Your task to perform on an android device: Clear all items from cart on ebay. Search for amazon basics triple a on ebay, select the first entry, add it to the cart, then select checkout. Image 0: 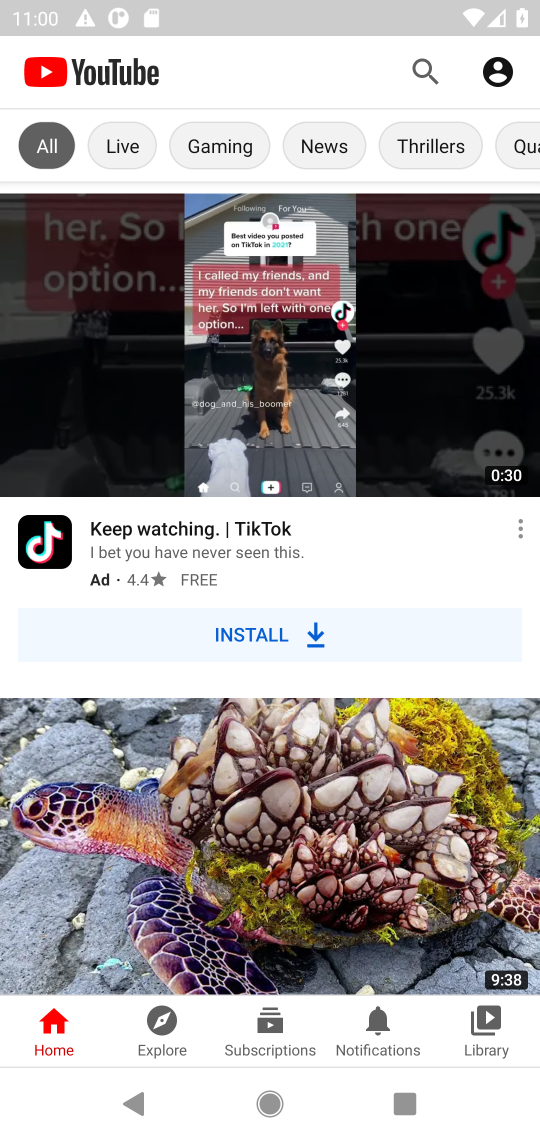
Step 0: press home button
Your task to perform on an android device: Clear all items from cart on ebay. Search for amazon basics triple a on ebay, select the first entry, add it to the cart, then select checkout. Image 1: 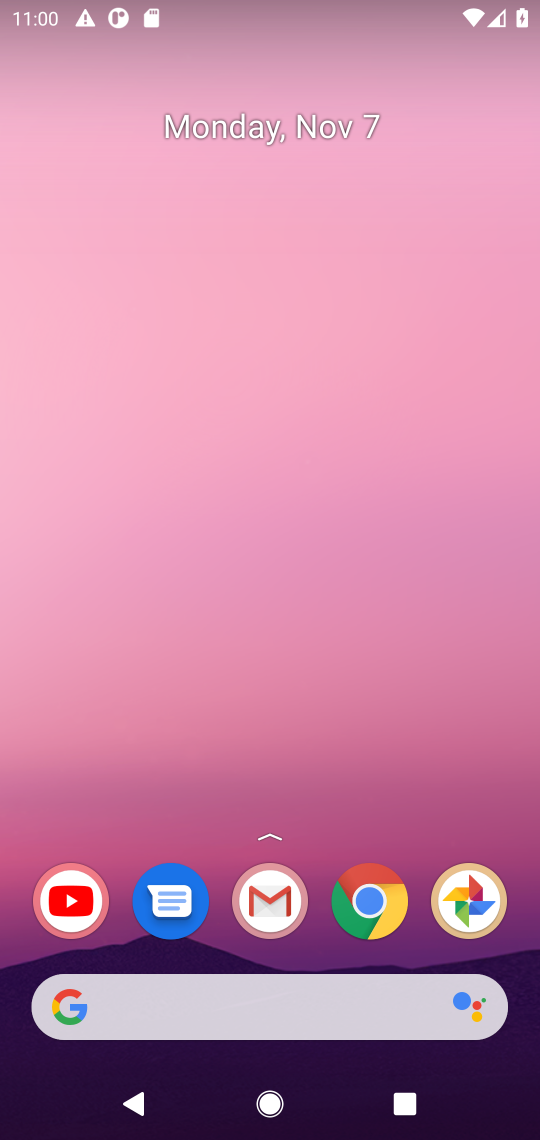
Step 1: click (407, 896)
Your task to perform on an android device: Clear all items from cart on ebay. Search for amazon basics triple a on ebay, select the first entry, add it to the cart, then select checkout. Image 2: 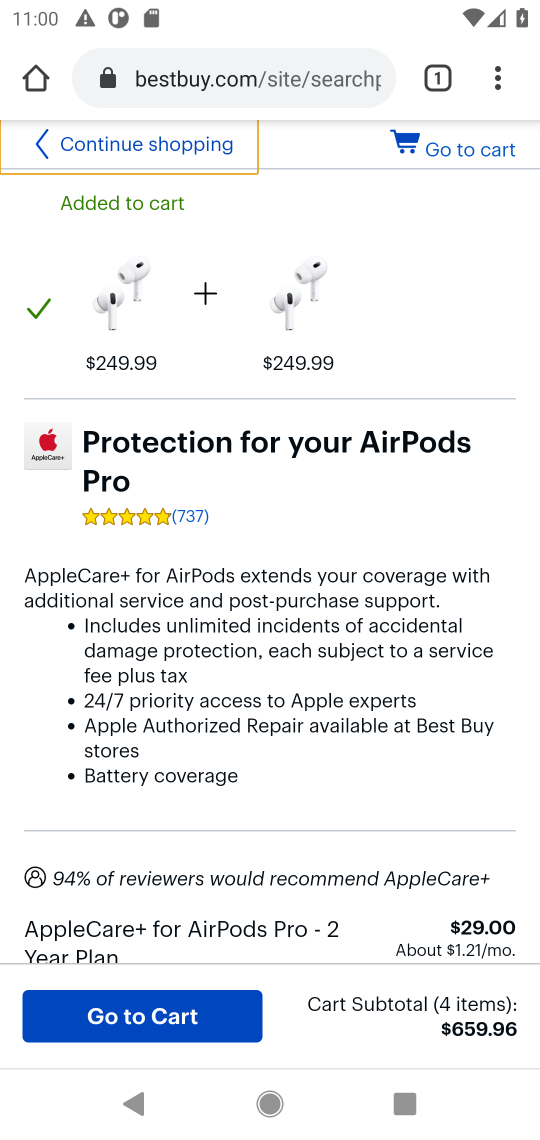
Step 2: click (266, 99)
Your task to perform on an android device: Clear all items from cart on ebay. Search for amazon basics triple a on ebay, select the first entry, add it to the cart, then select checkout. Image 3: 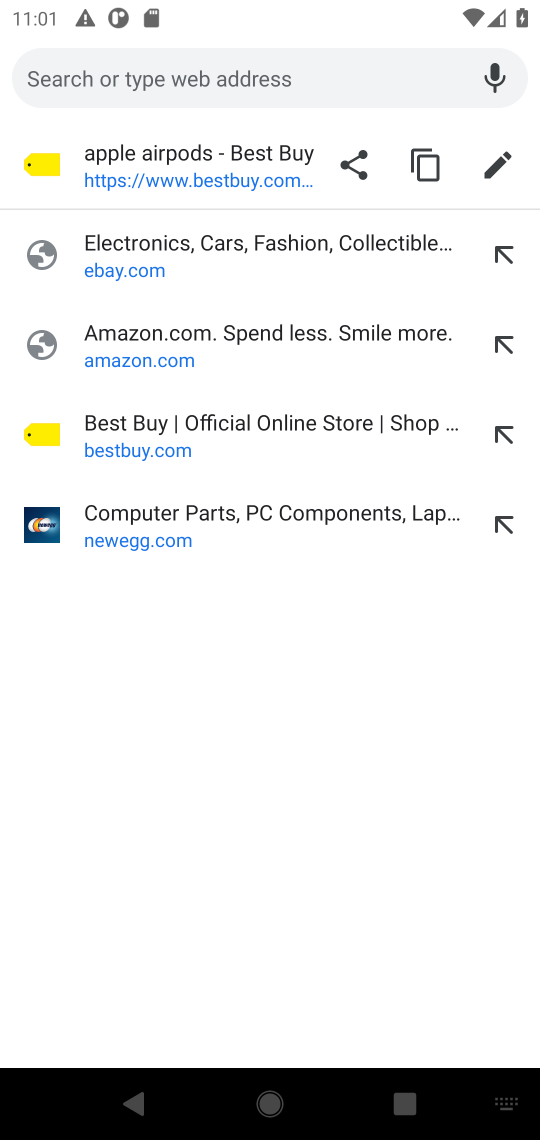
Step 3: type "ebay"
Your task to perform on an android device: Clear all items from cart on ebay. Search for amazon basics triple a on ebay, select the first entry, add it to the cart, then select checkout. Image 4: 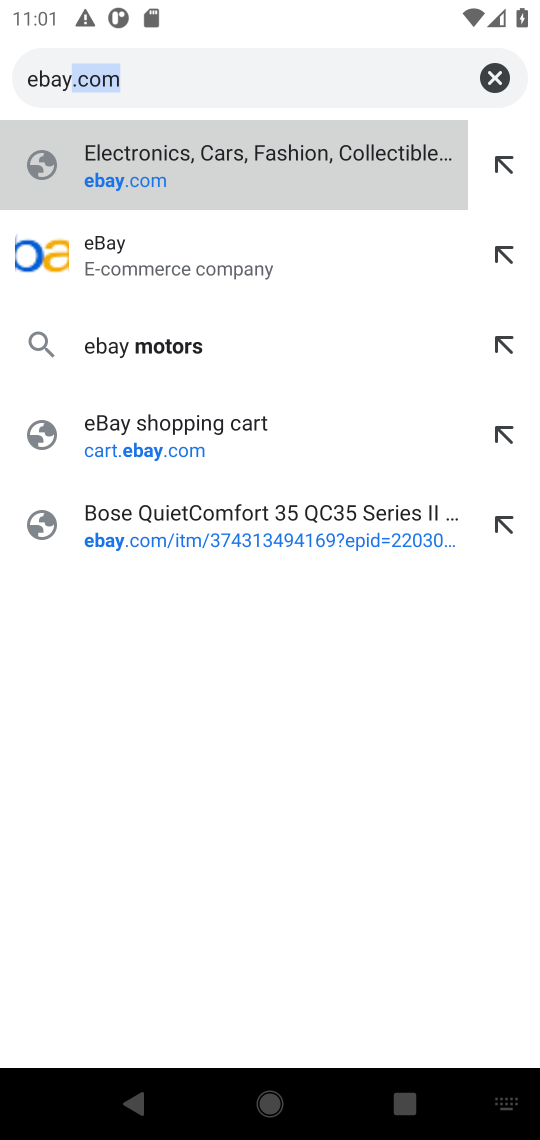
Step 4: click (243, 153)
Your task to perform on an android device: Clear all items from cart on ebay. Search for amazon basics triple a on ebay, select the first entry, add it to the cart, then select checkout. Image 5: 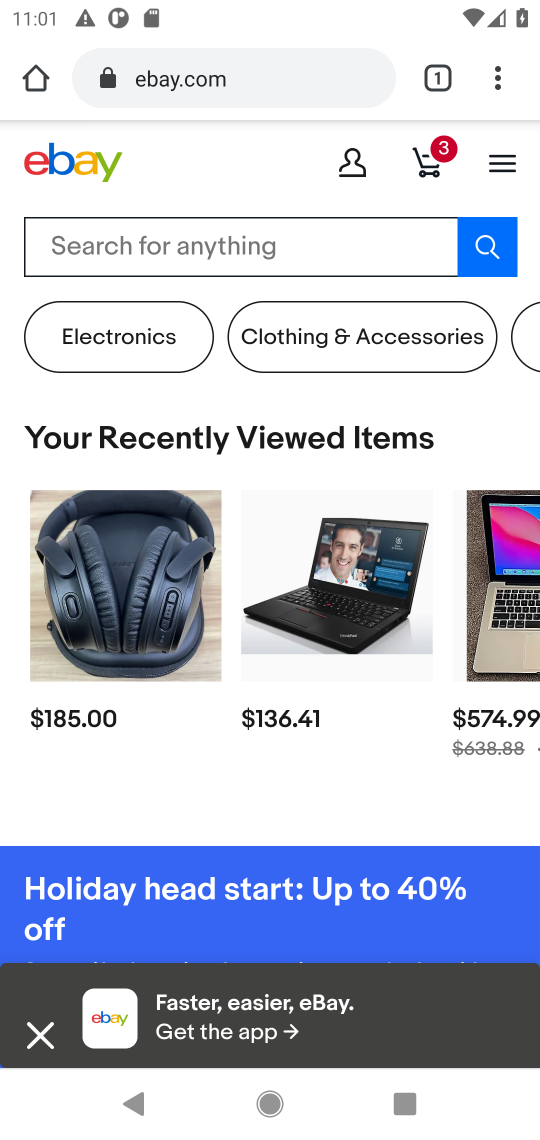
Step 5: click (253, 247)
Your task to perform on an android device: Clear all items from cart on ebay. Search for amazon basics triple a on ebay, select the first entry, add it to the cart, then select checkout. Image 6: 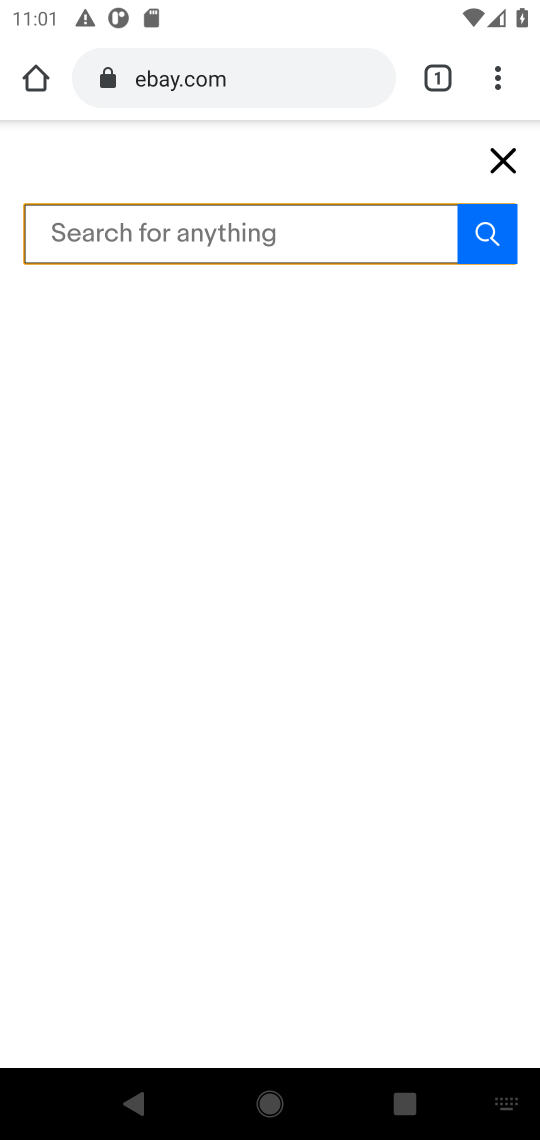
Step 6: type "amazon basic aaa"
Your task to perform on an android device: Clear all items from cart on ebay. Search for amazon basics triple a on ebay, select the first entry, add it to the cart, then select checkout. Image 7: 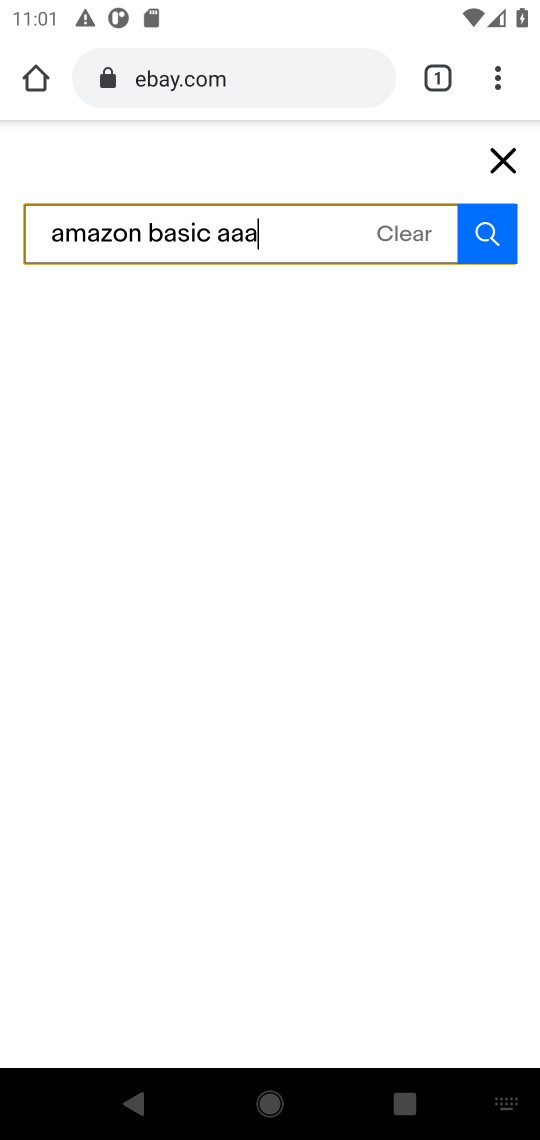
Step 7: press enter
Your task to perform on an android device: Clear all items from cart on ebay. Search for amazon basics triple a on ebay, select the first entry, add it to the cart, then select checkout. Image 8: 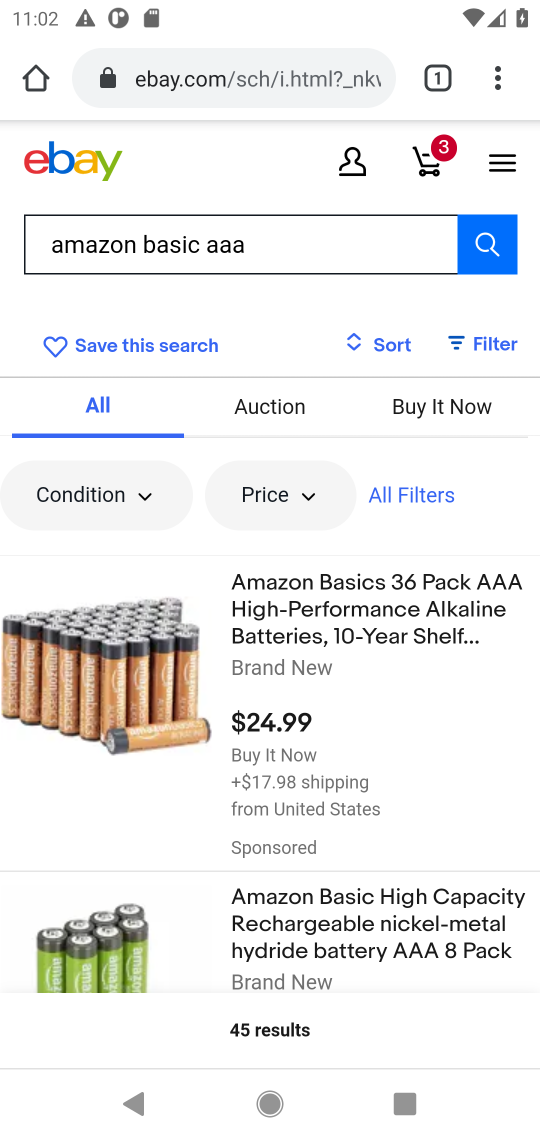
Step 8: click (232, 693)
Your task to perform on an android device: Clear all items from cart on ebay. Search for amazon basics triple a on ebay, select the first entry, add it to the cart, then select checkout. Image 9: 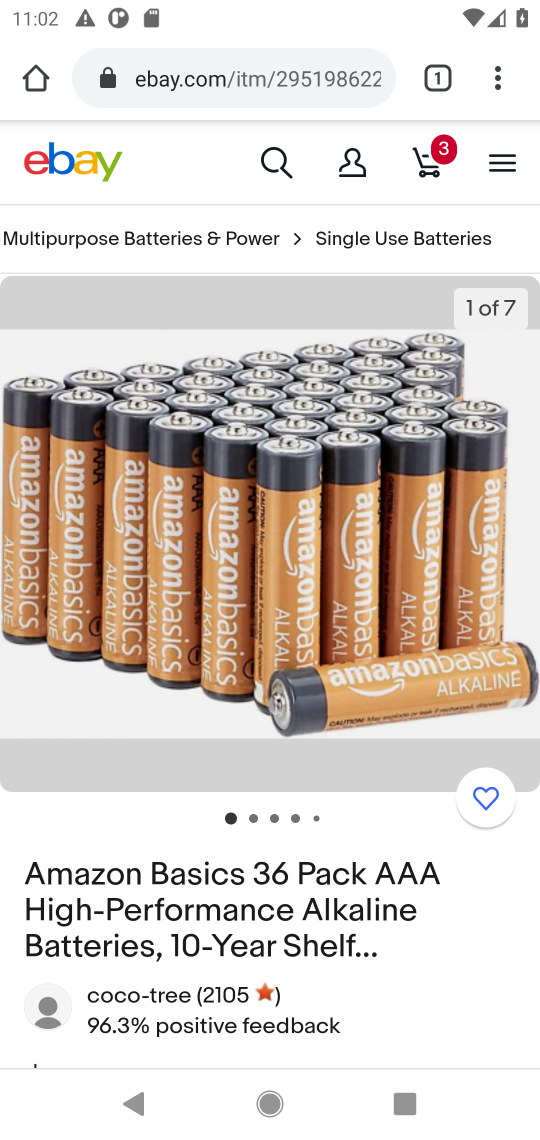
Step 9: drag from (335, 883) to (126, 238)
Your task to perform on an android device: Clear all items from cart on ebay. Search for amazon basics triple a on ebay, select the first entry, add it to the cart, then select checkout. Image 10: 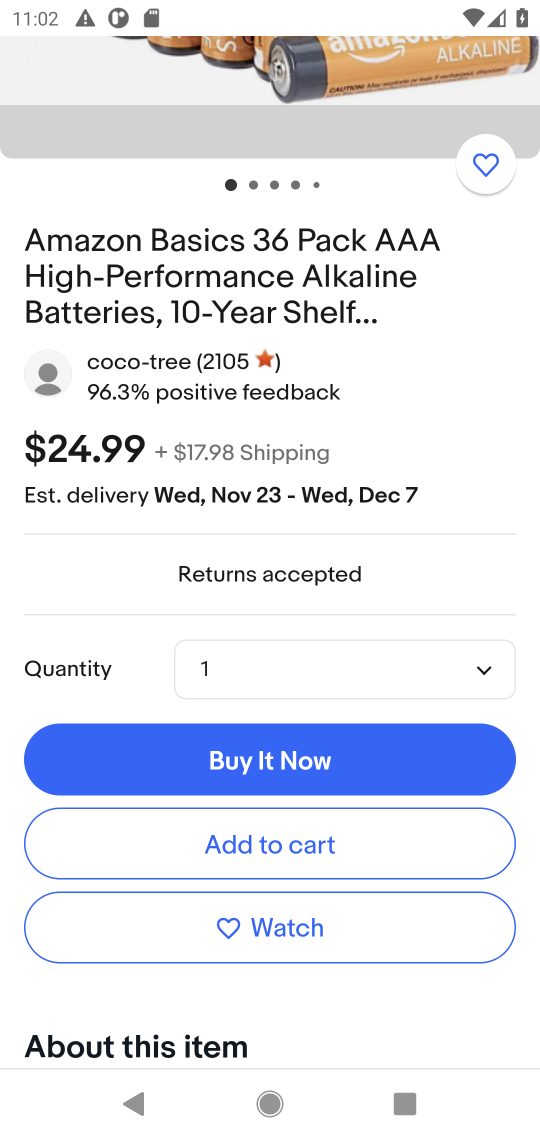
Step 10: click (255, 850)
Your task to perform on an android device: Clear all items from cart on ebay. Search for amazon basics triple a on ebay, select the first entry, add it to the cart, then select checkout. Image 11: 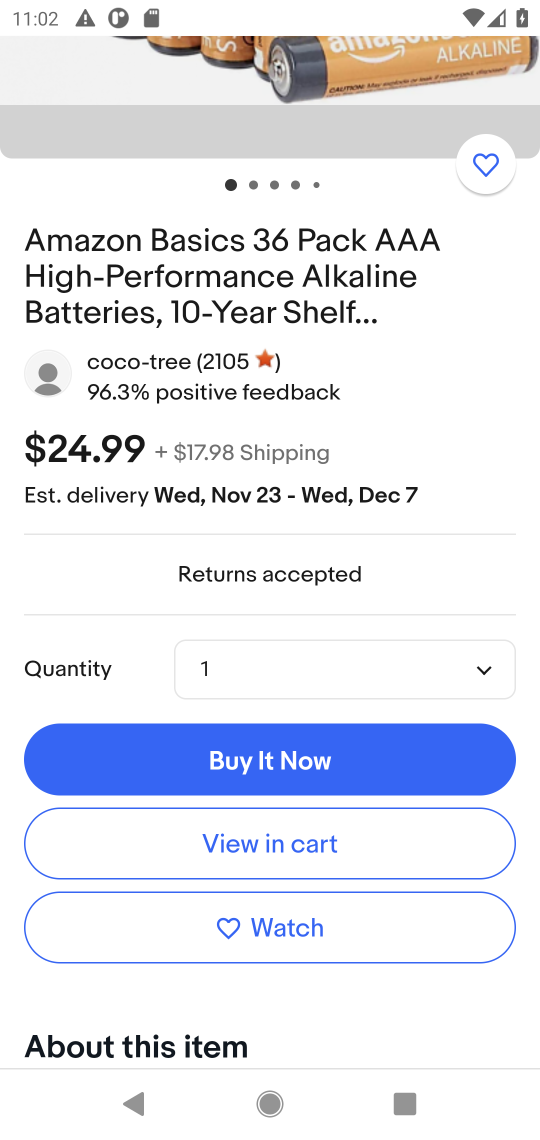
Step 11: drag from (457, 261) to (461, 776)
Your task to perform on an android device: Clear all items from cart on ebay. Search for amazon basics triple a on ebay, select the first entry, add it to the cart, then select checkout. Image 12: 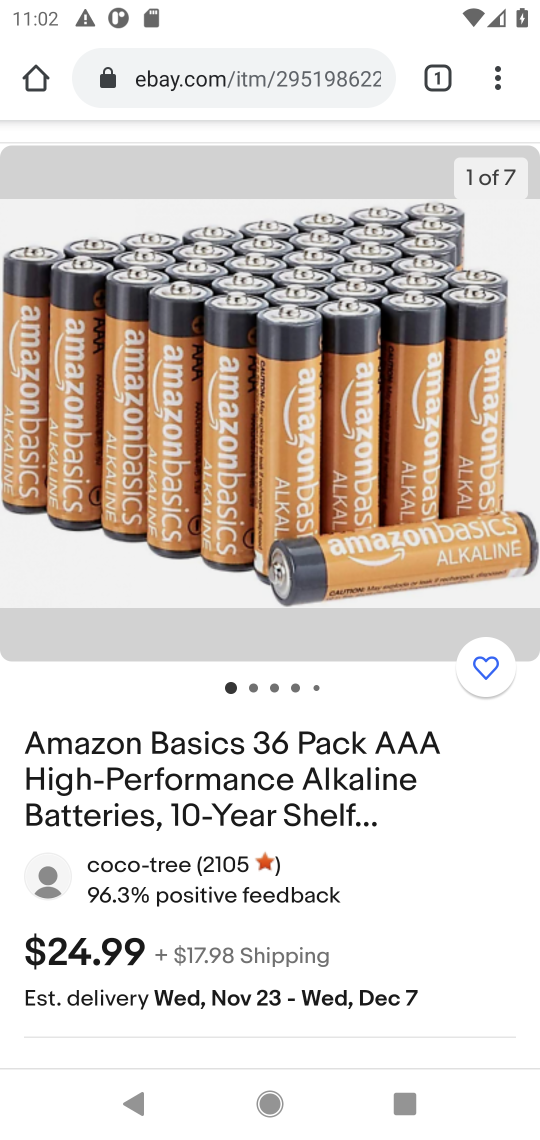
Step 12: drag from (395, 395) to (451, 827)
Your task to perform on an android device: Clear all items from cart on ebay. Search for amazon basics triple a on ebay, select the first entry, add it to the cart, then select checkout. Image 13: 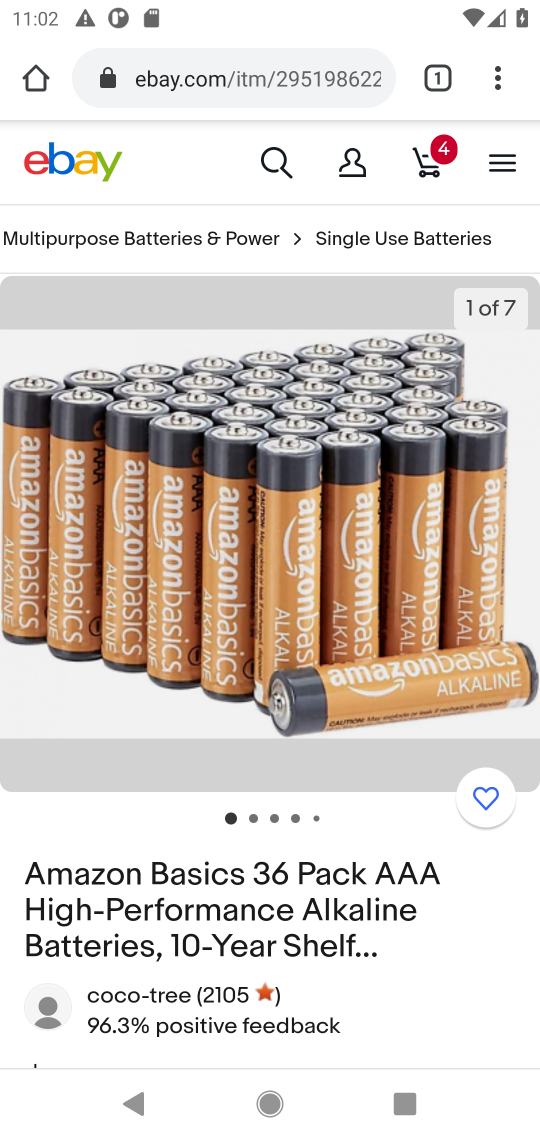
Step 13: click (431, 164)
Your task to perform on an android device: Clear all items from cart on ebay. Search for amazon basics triple a on ebay, select the first entry, add it to the cart, then select checkout. Image 14: 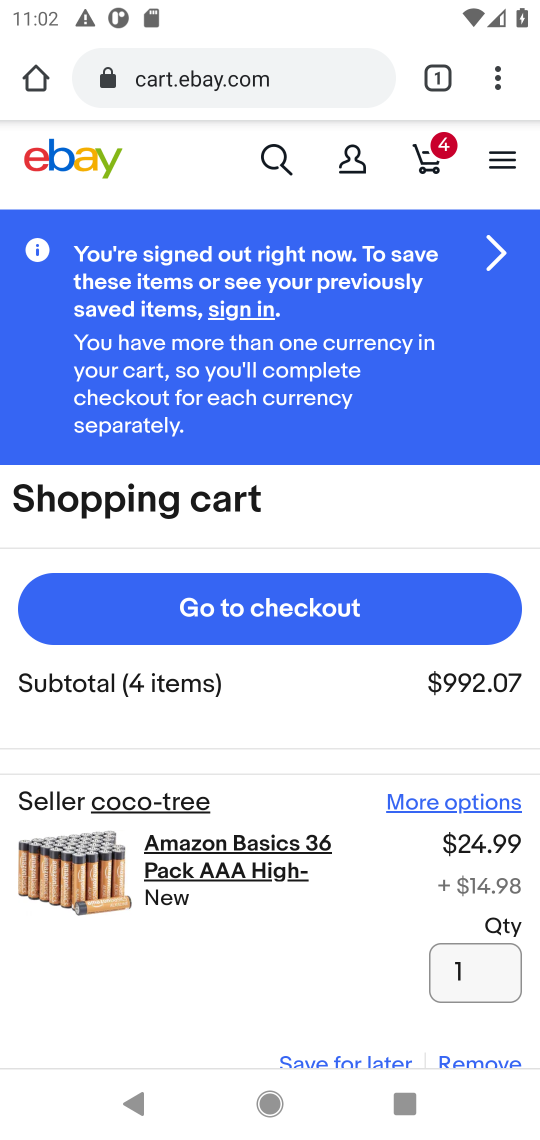
Step 14: click (302, 620)
Your task to perform on an android device: Clear all items from cart on ebay. Search for amazon basics triple a on ebay, select the first entry, add it to the cart, then select checkout. Image 15: 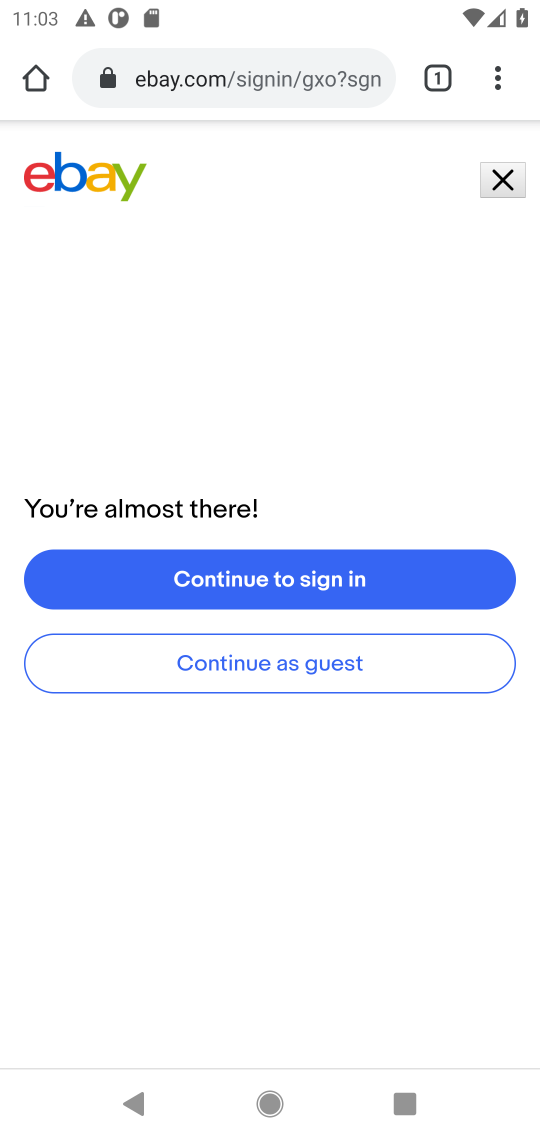
Step 15: task complete